Your task to perform on an android device: clear history in the chrome app Image 0: 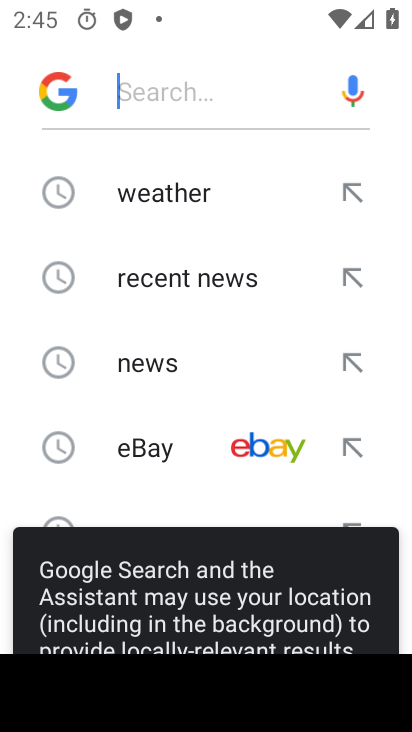
Step 0: press home button
Your task to perform on an android device: clear history in the chrome app Image 1: 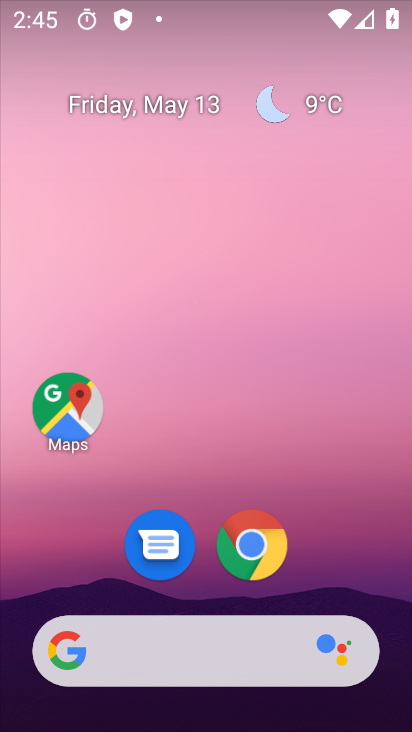
Step 1: click (249, 536)
Your task to perform on an android device: clear history in the chrome app Image 2: 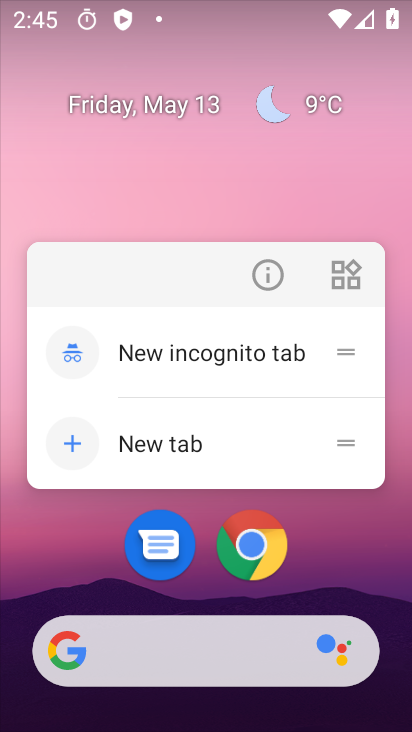
Step 2: click (263, 542)
Your task to perform on an android device: clear history in the chrome app Image 3: 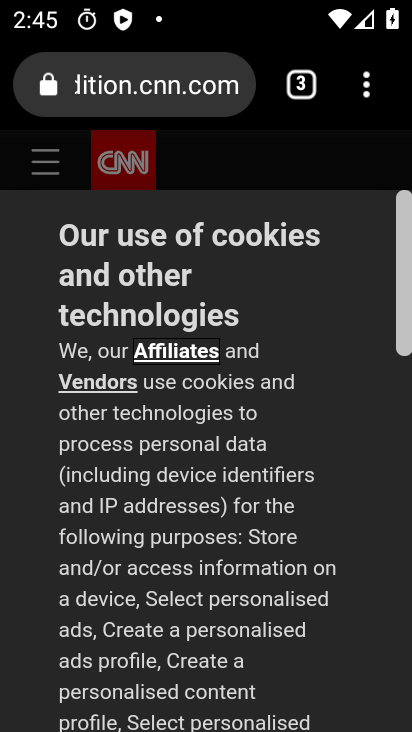
Step 3: drag from (370, 90) to (104, 509)
Your task to perform on an android device: clear history in the chrome app Image 4: 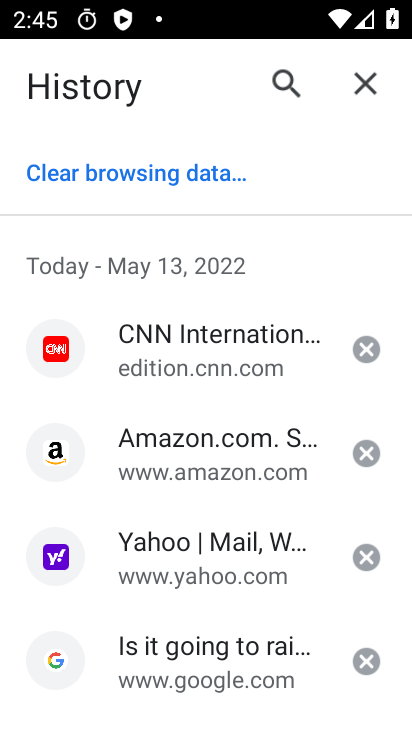
Step 4: click (55, 348)
Your task to perform on an android device: clear history in the chrome app Image 5: 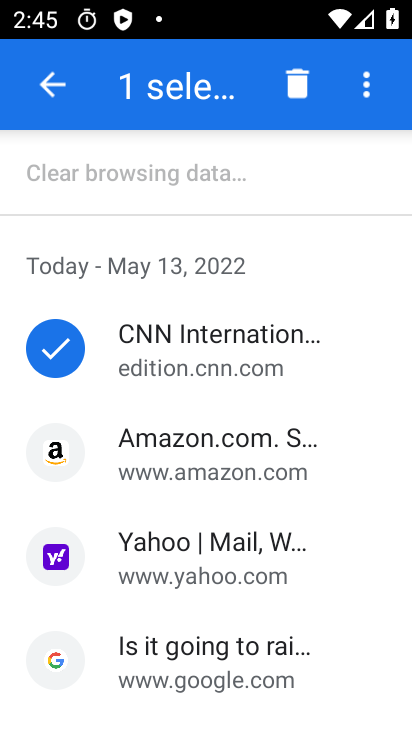
Step 5: click (67, 437)
Your task to perform on an android device: clear history in the chrome app Image 6: 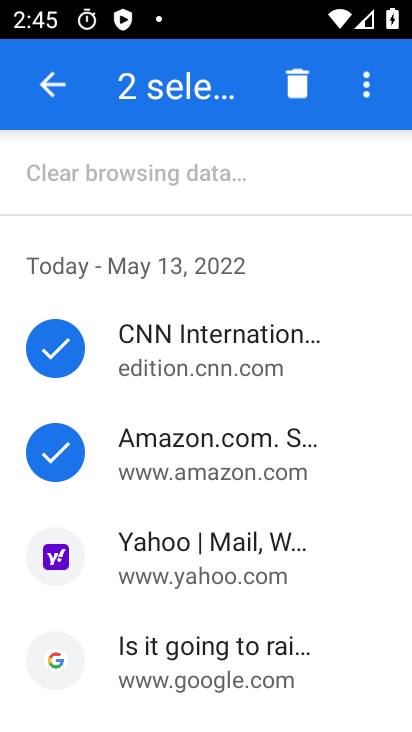
Step 6: click (63, 552)
Your task to perform on an android device: clear history in the chrome app Image 7: 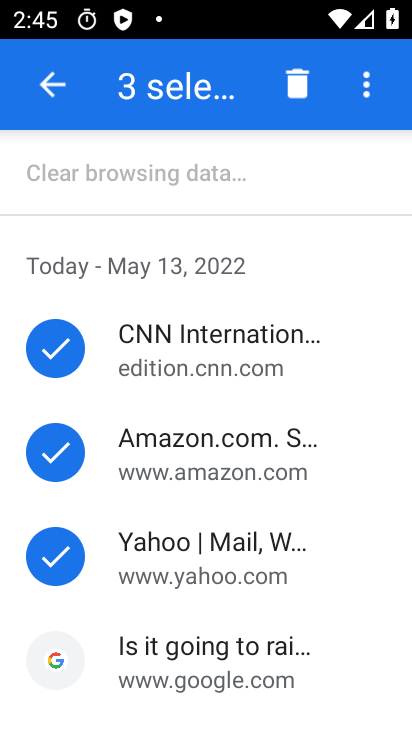
Step 7: click (40, 662)
Your task to perform on an android device: clear history in the chrome app Image 8: 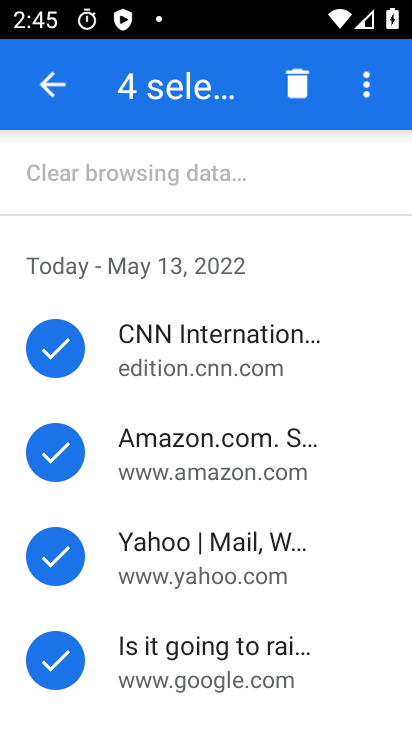
Step 8: drag from (353, 612) to (321, 265)
Your task to perform on an android device: clear history in the chrome app Image 9: 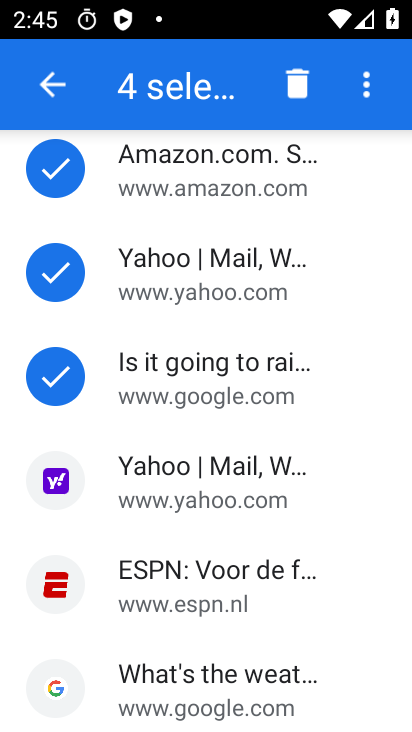
Step 9: click (66, 472)
Your task to perform on an android device: clear history in the chrome app Image 10: 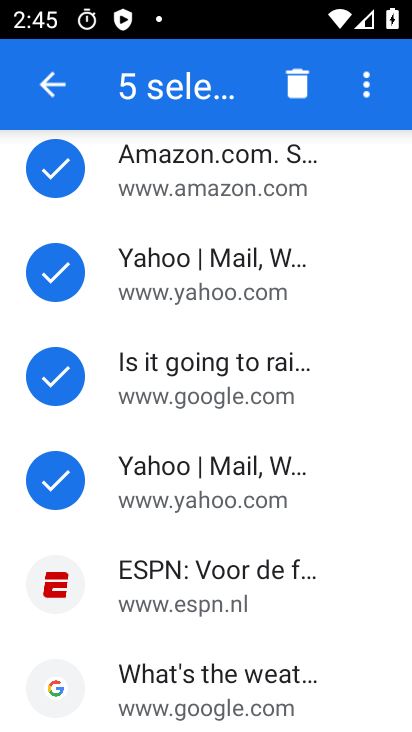
Step 10: click (56, 585)
Your task to perform on an android device: clear history in the chrome app Image 11: 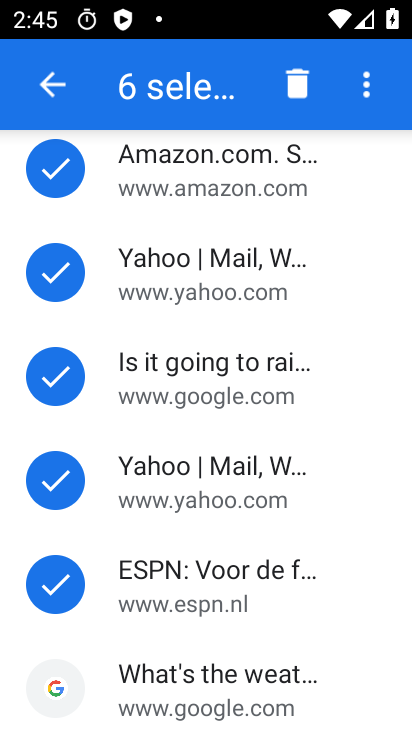
Step 11: click (43, 684)
Your task to perform on an android device: clear history in the chrome app Image 12: 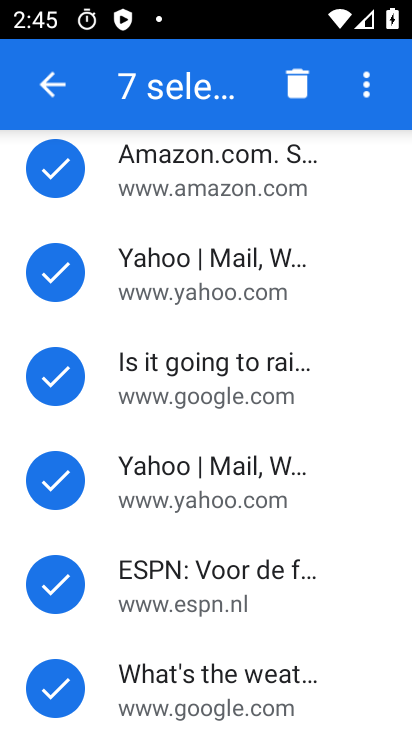
Step 12: drag from (342, 632) to (321, 198)
Your task to perform on an android device: clear history in the chrome app Image 13: 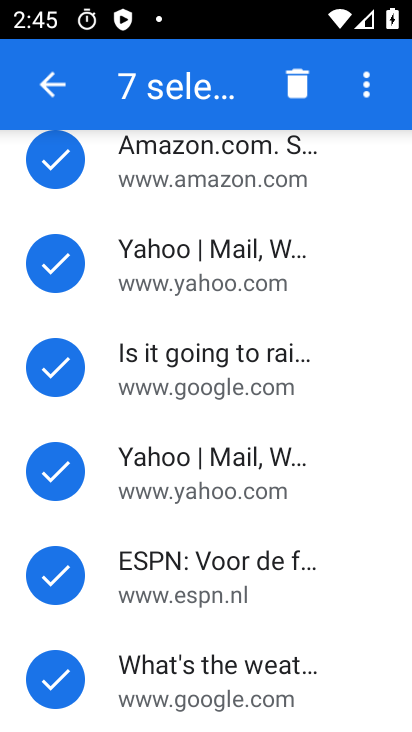
Step 13: click (296, 78)
Your task to perform on an android device: clear history in the chrome app Image 14: 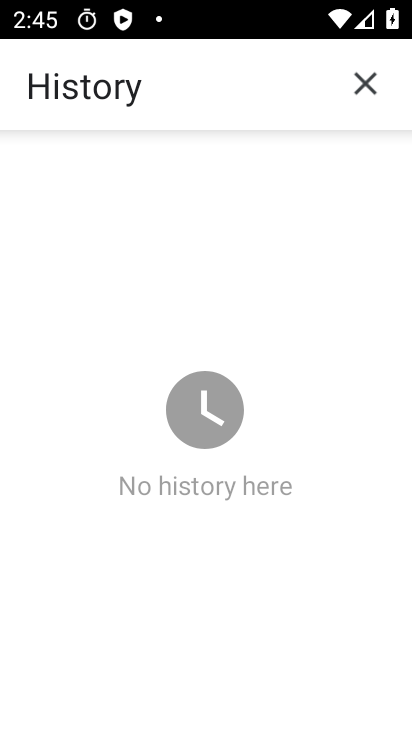
Step 14: task complete